Your task to perform on an android device: check the backup settings in the google photos Image 0: 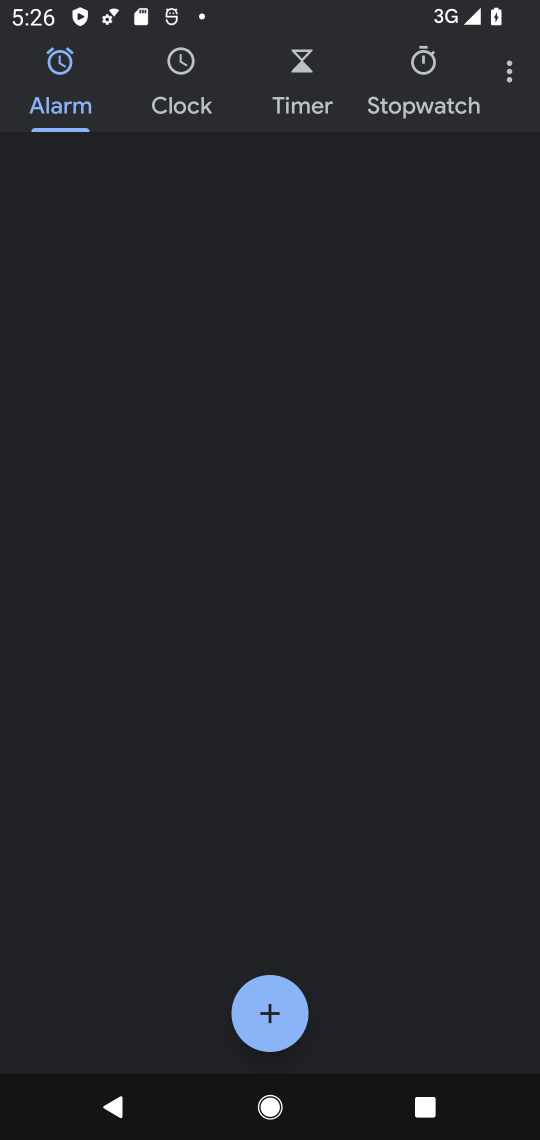
Step 0: press home button
Your task to perform on an android device: check the backup settings in the google photos Image 1: 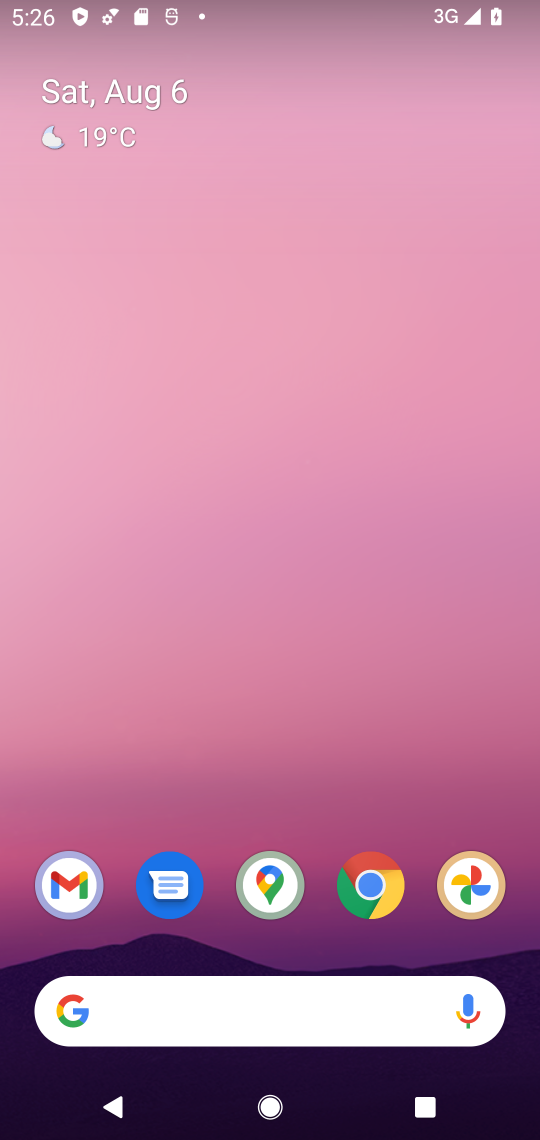
Step 1: drag from (484, 844) to (220, 78)
Your task to perform on an android device: check the backup settings in the google photos Image 2: 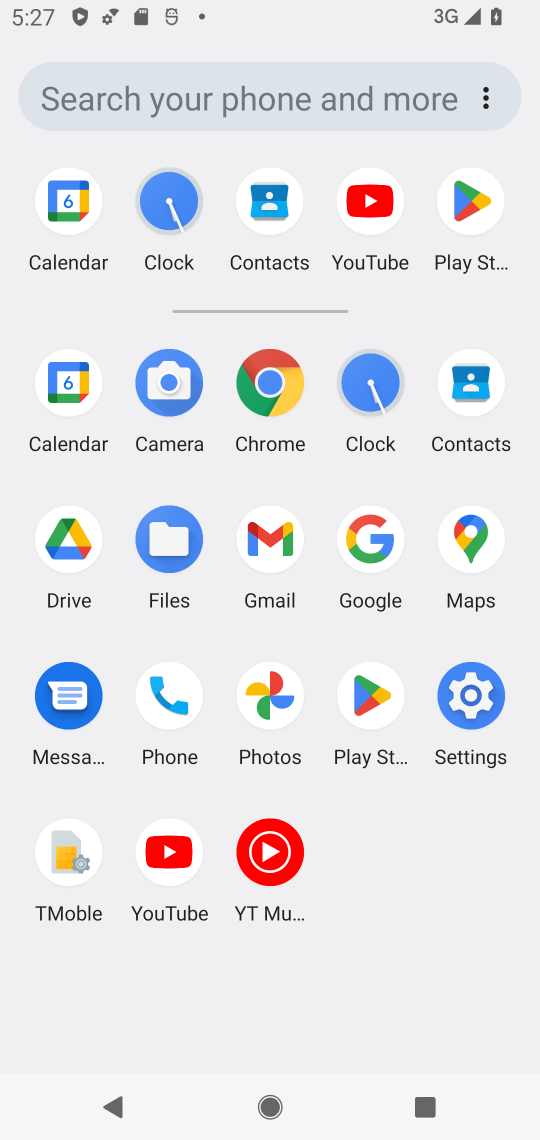
Step 2: click (269, 683)
Your task to perform on an android device: check the backup settings in the google photos Image 3: 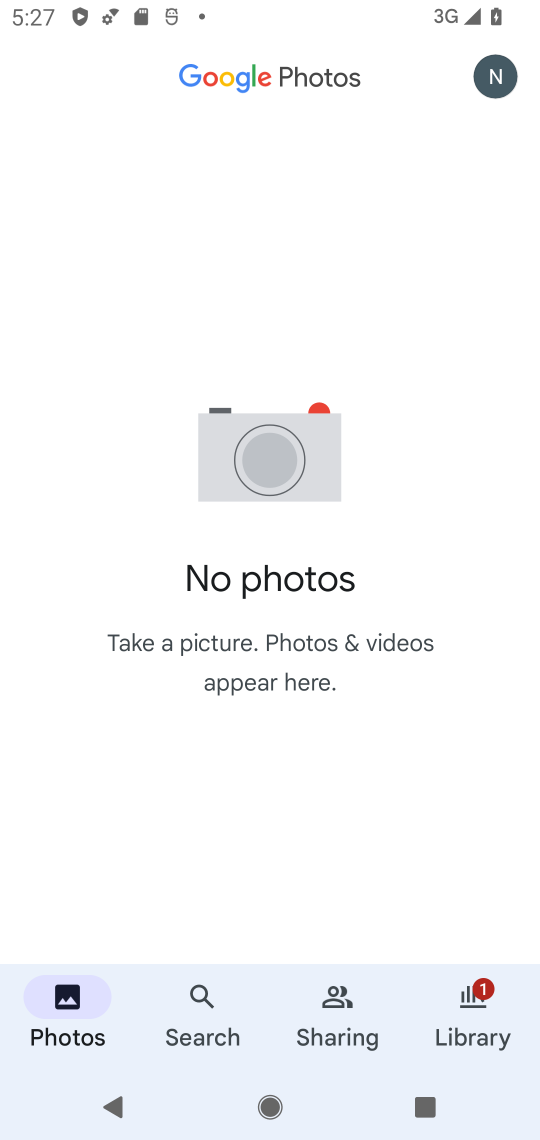
Step 3: click (498, 92)
Your task to perform on an android device: check the backup settings in the google photos Image 4: 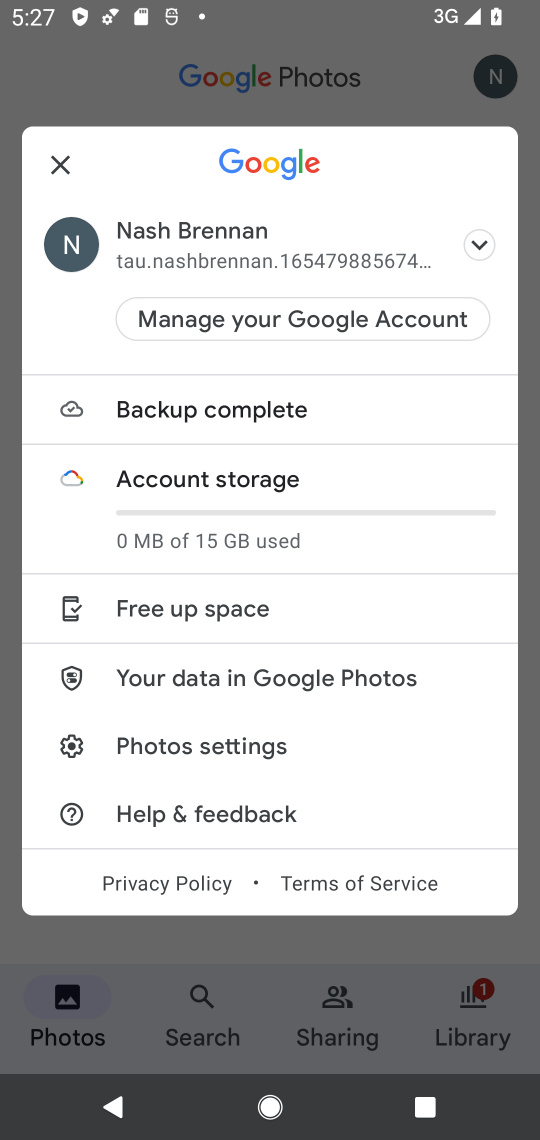
Step 4: click (157, 749)
Your task to perform on an android device: check the backup settings in the google photos Image 5: 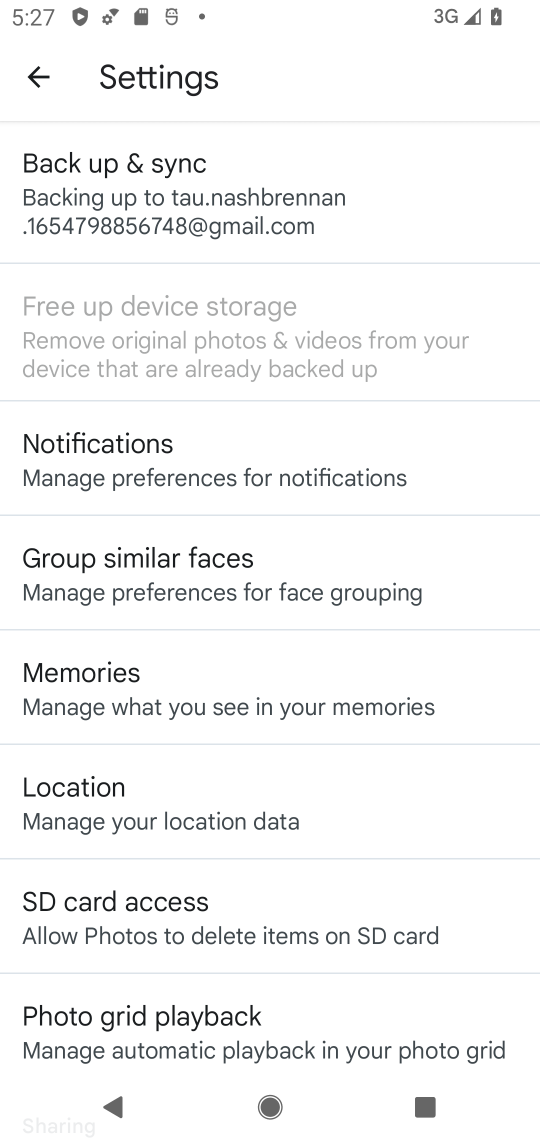
Step 5: task complete